Your task to perform on an android device: turn off wifi Image 0: 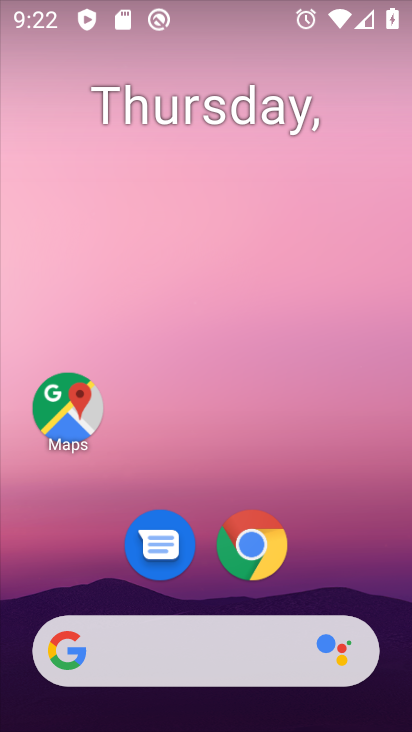
Step 0: drag from (327, 496) to (208, 43)
Your task to perform on an android device: turn off wifi Image 1: 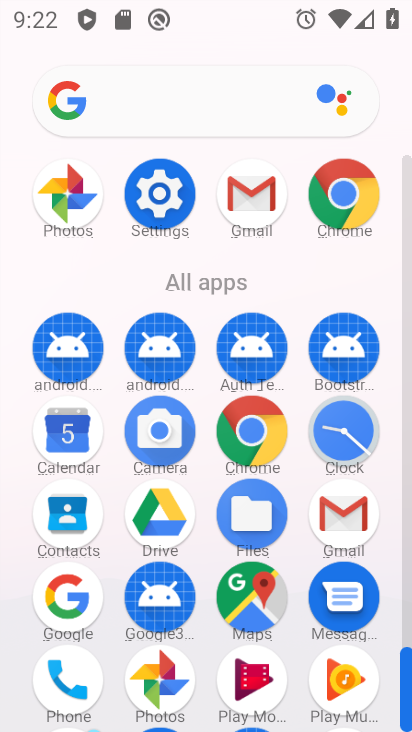
Step 1: click (153, 193)
Your task to perform on an android device: turn off wifi Image 2: 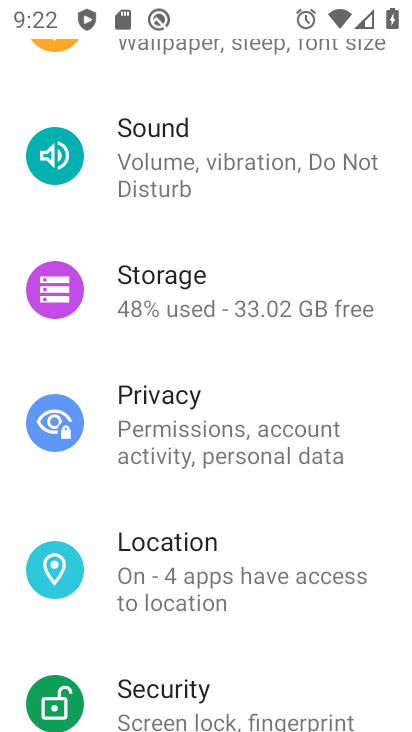
Step 2: drag from (231, 230) to (333, 710)
Your task to perform on an android device: turn off wifi Image 3: 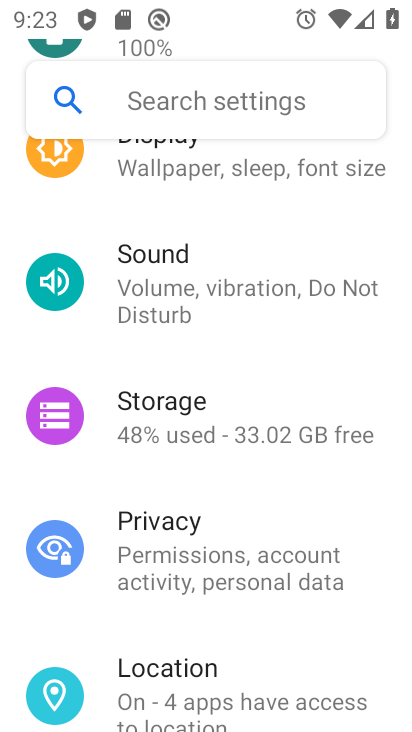
Step 3: drag from (211, 224) to (213, 701)
Your task to perform on an android device: turn off wifi Image 4: 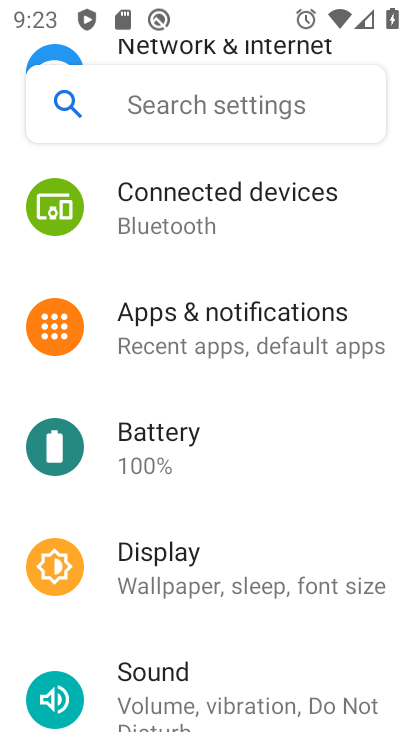
Step 4: drag from (197, 255) to (232, 707)
Your task to perform on an android device: turn off wifi Image 5: 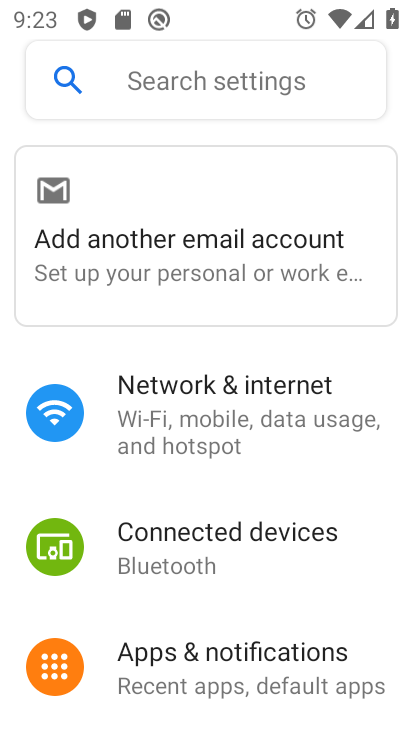
Step 5: click (174, 431)
Your task to perform on an android device: turn off wifi Image 6: 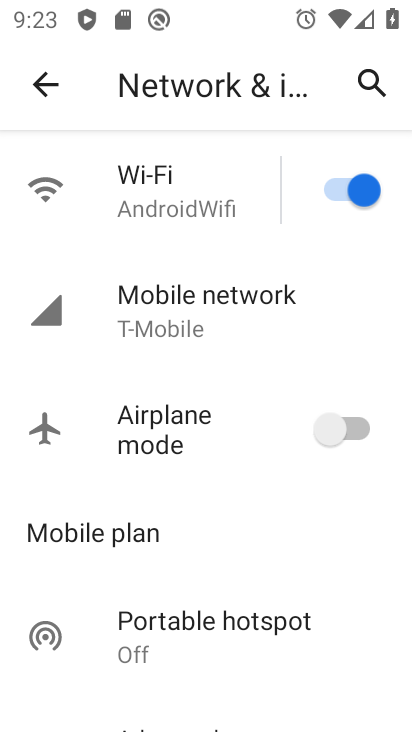
Step 6: click (348, 190)
Your task to perform on an android device: turn off wifi Image 7: 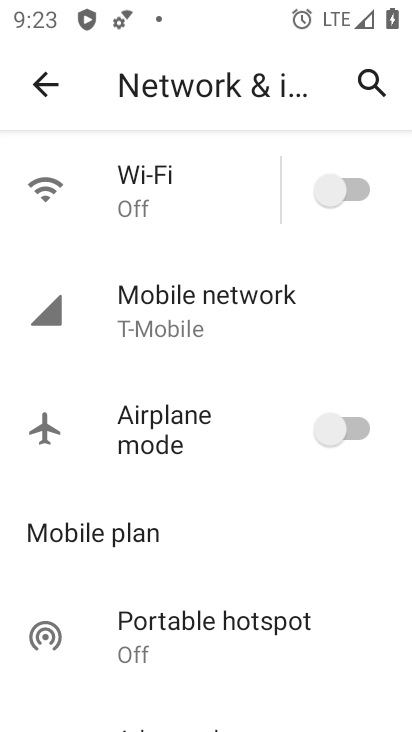
Step 7: task complete